Your task to perform on an android device: Clear the shopping cart on walmart.com. Search for "macbook pro" on walmart.com, select the first entry, and add it to the cart. Image 0: 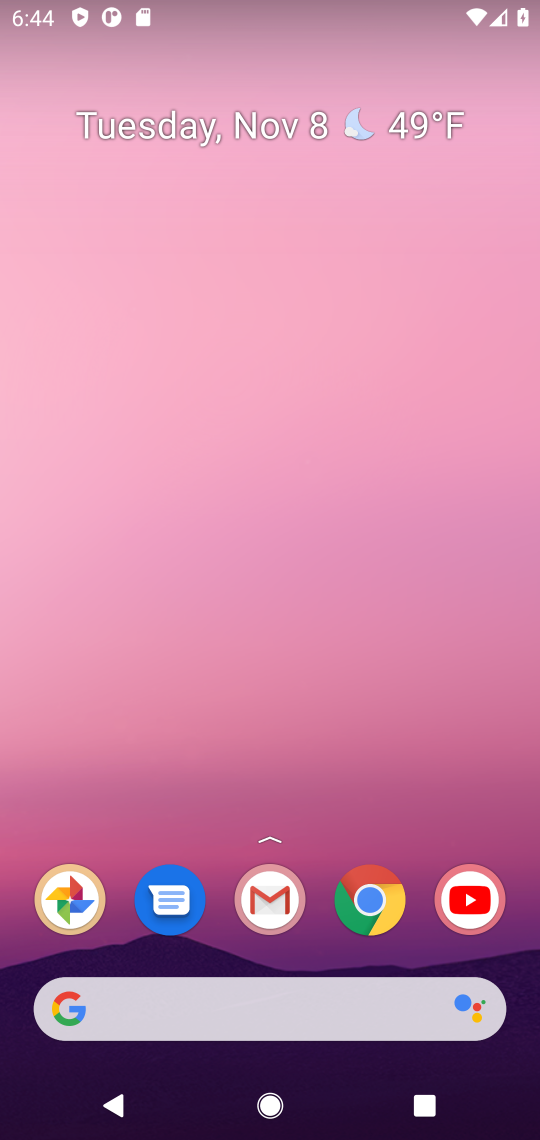
Step 0: drag from (134, 989) to (250, 187)
Your task to perform on an android device: Clear the shopping cart on walmart.com. Search for "macbook pro" on walmart.com, select the first entry, and add it to the cart. Image 1: 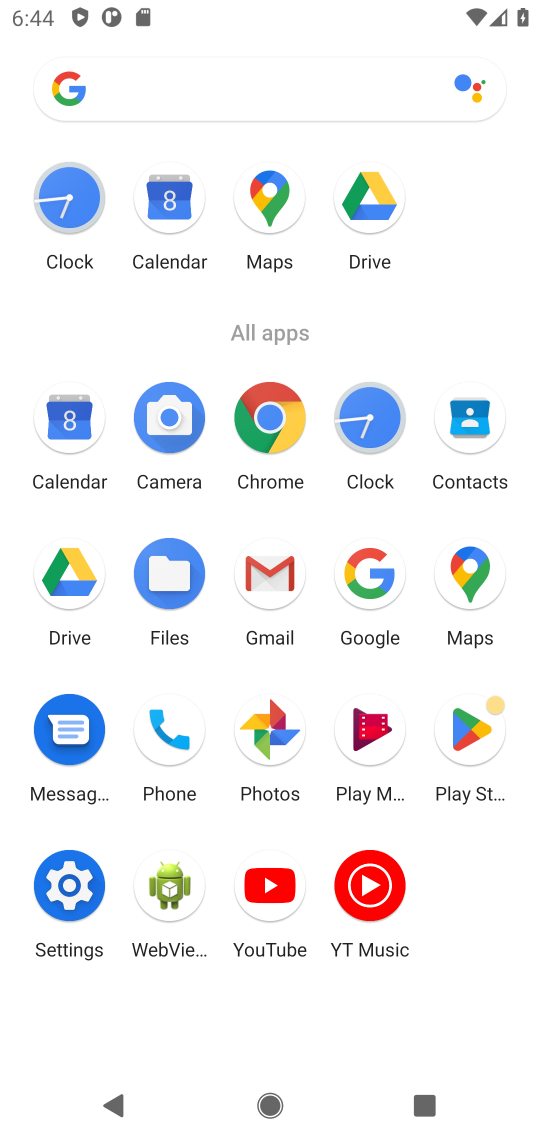
Step 1: click (359, 571)
Your task to perform on an android device: Clear the shopping cart on walmart.com. Search for "macbook pro" on walmart.com, select the first entry, and add it to the cart. Image 2: 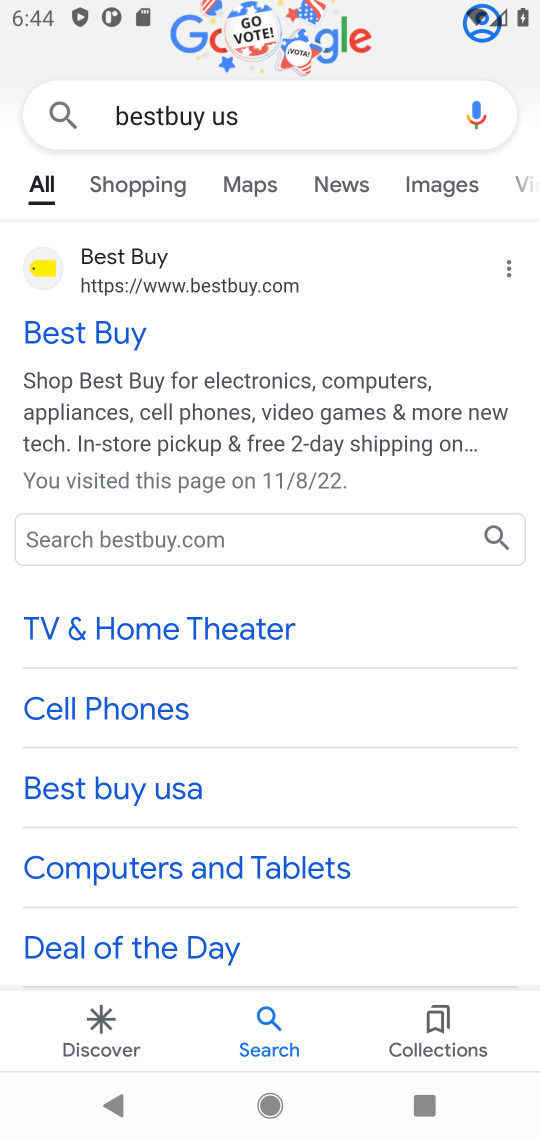
Step 2: click (275, 122)
Your task to perform on an android device: Clear the shopping cart on walmart.com. Search for "macbook pro" on walmart.com, select the first entry, and add it to the cart. Image 3: 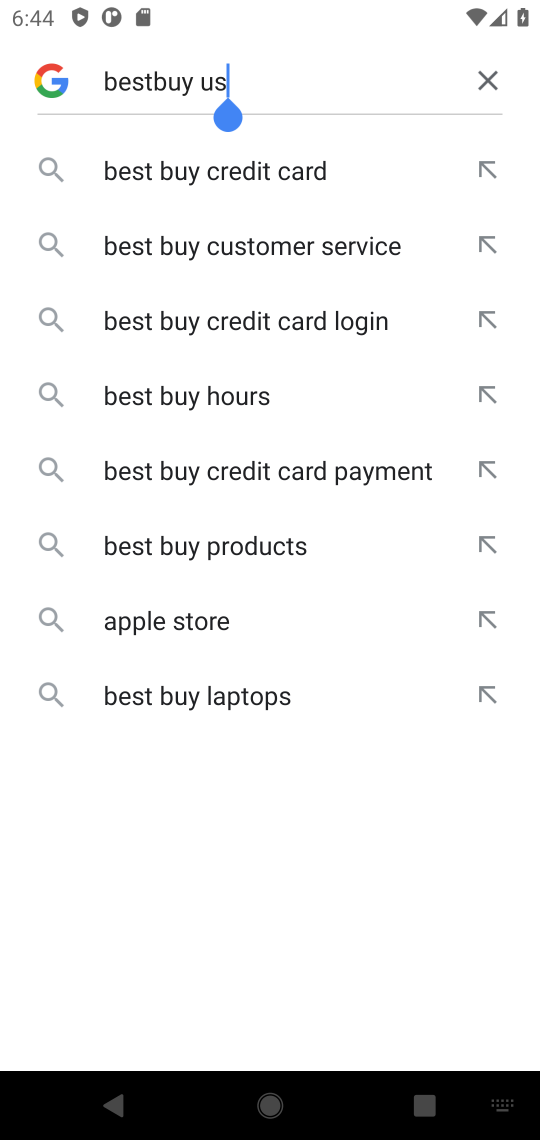
Step 3: click (497, 71)
Your task to perform on an android device: Clear the shopping cart on walmart.com. Search for "macbook pro" on walmart.com, select the first entry, and add it to the cart. Image 4: 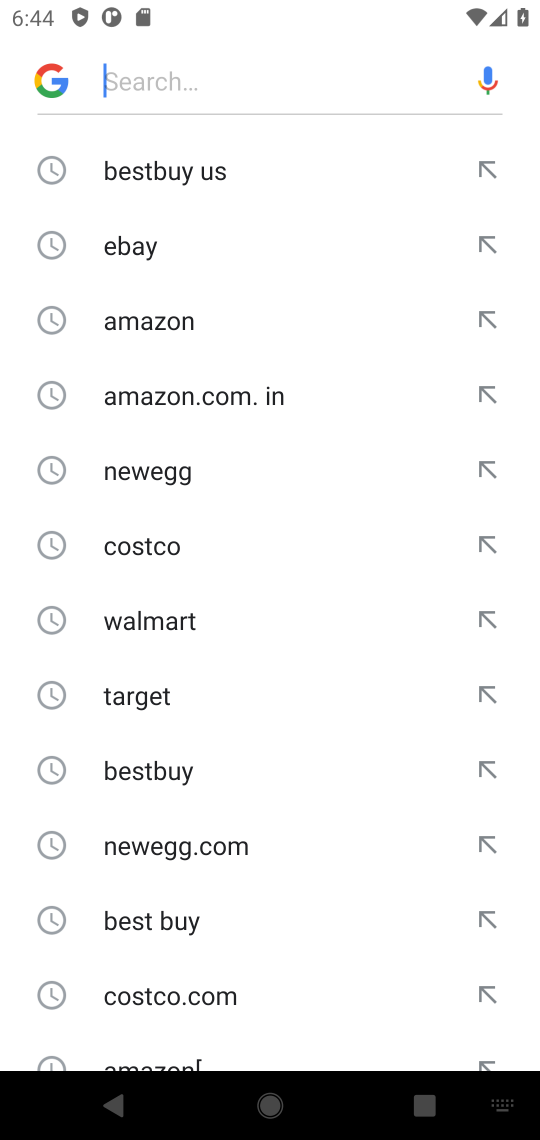
Step 4: click (252, 53)
Your task to perform on an android device: Clear the shopping cart on walmart.com. Search for "macbook pro" on walmart.com, select the first entry, and add it to the cart. Image 5: 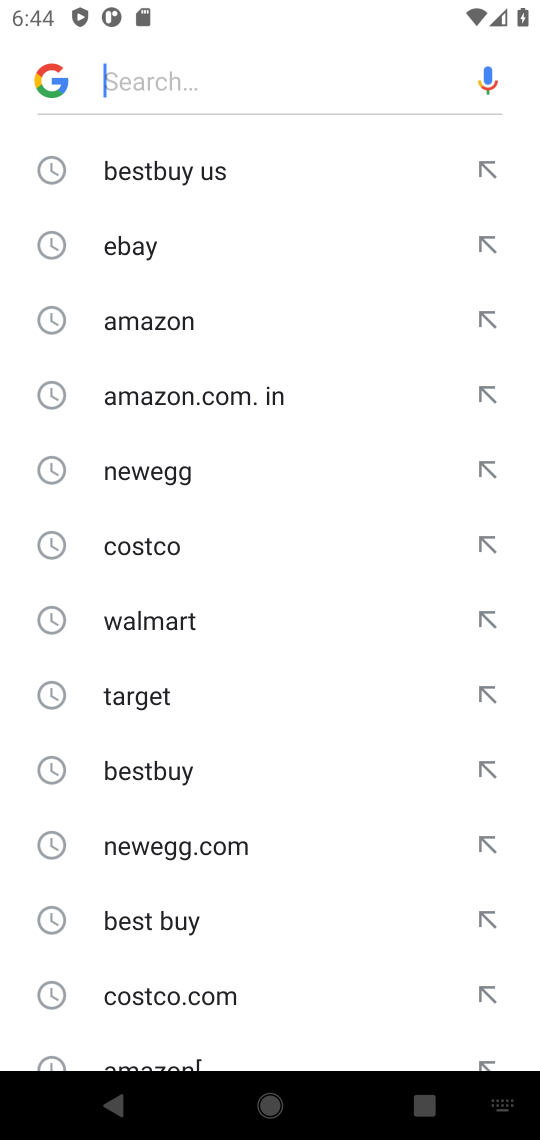
Step 5: click (252, 83)
Your task to perform on an android device: Clear the shopping cart on walmart.com. Search for "macbook pro" on walmart.com, select the first entry, and add it to the cart. Image 6: 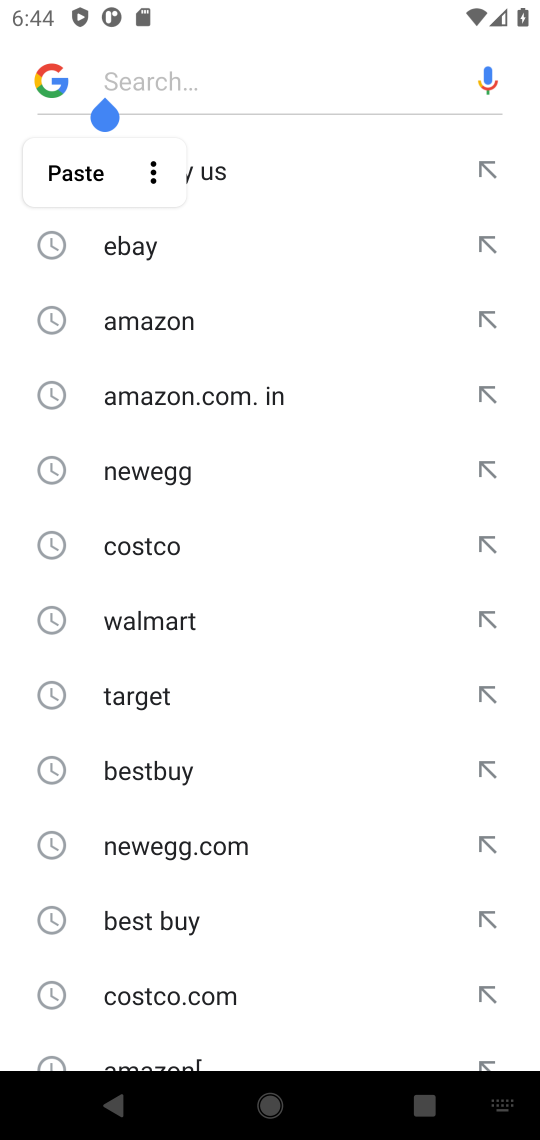
Step 6: type "walmart "
Your task to perform on an android device: Clear the shopping cart on walmart.com. Search for "macbook pro" on walmart.com, select the first entry, and add it to the cart. Image 7: 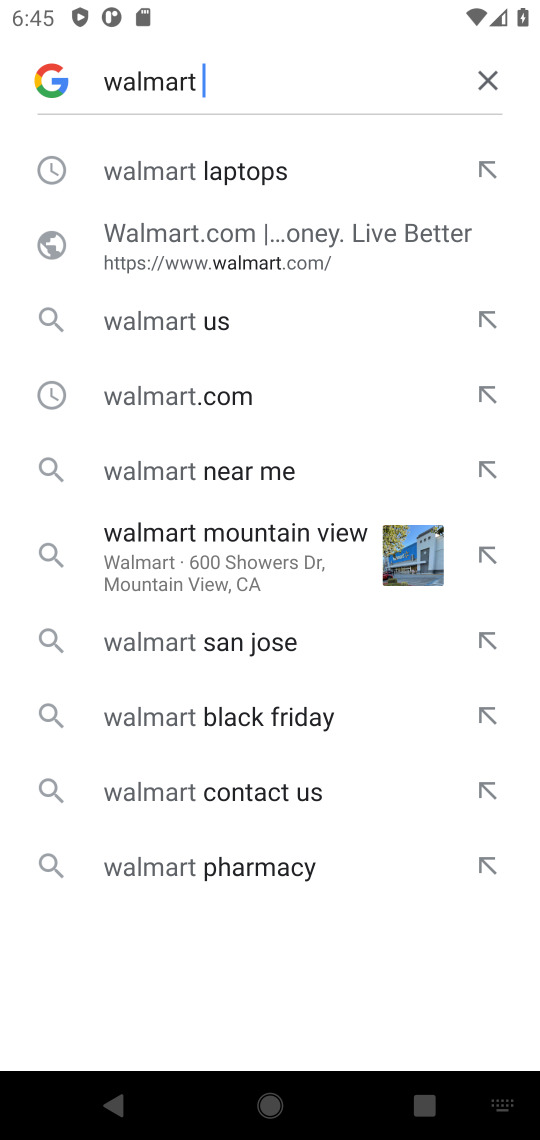
Step 7: click (272, 224)
Your task to perform on an android device: Clear the shopping cart on walmart.com. Search for "macbook pro" on walmart.com, select the first entry, and add it to the cart. Image 8: 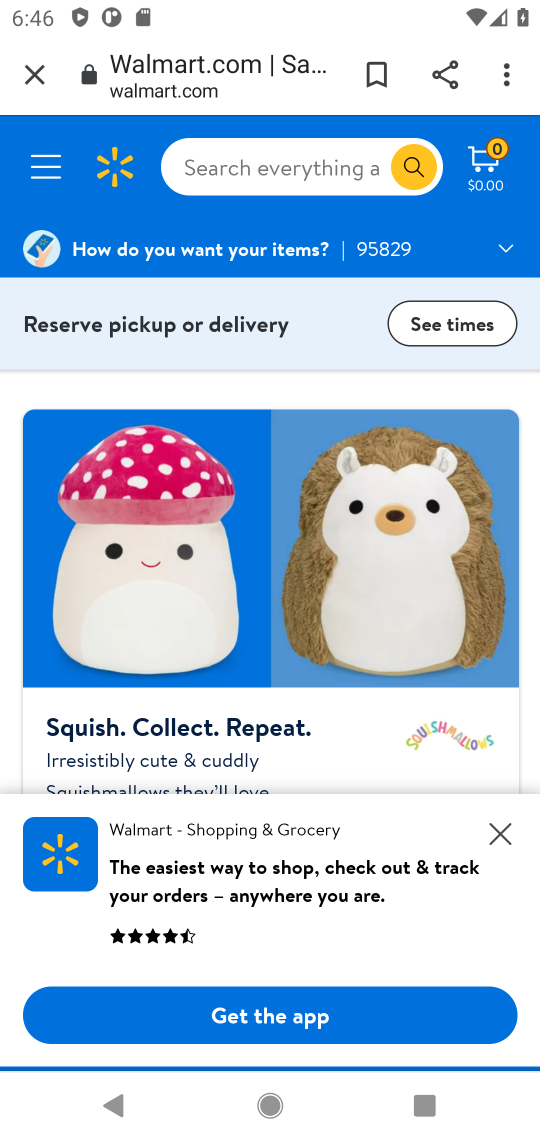
Step 8: click (244, 163)
Your task to perform on an android device: Clear the shopping cart on walmart.com. Search for "macbook pro" on walmart.com, select the first entry, and add it to the cart. Image 9: 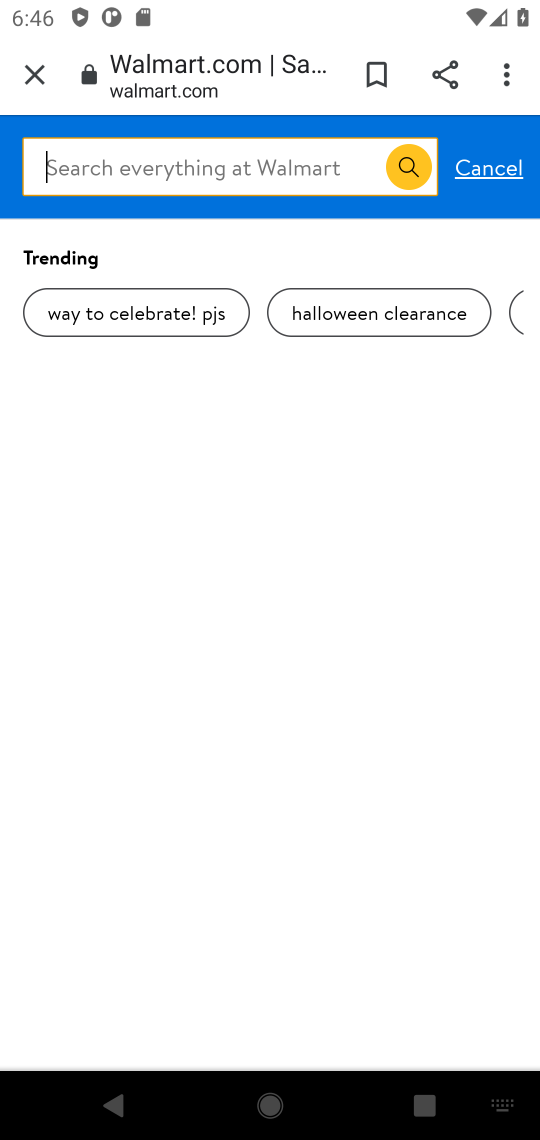
Step 9: type "macbook "
Your task to perform on an android device: Clear the shopping cart on walmart.com. Search for "macbook pro" on walmart.com, select the first entry, and add it to the cart. Image 10: 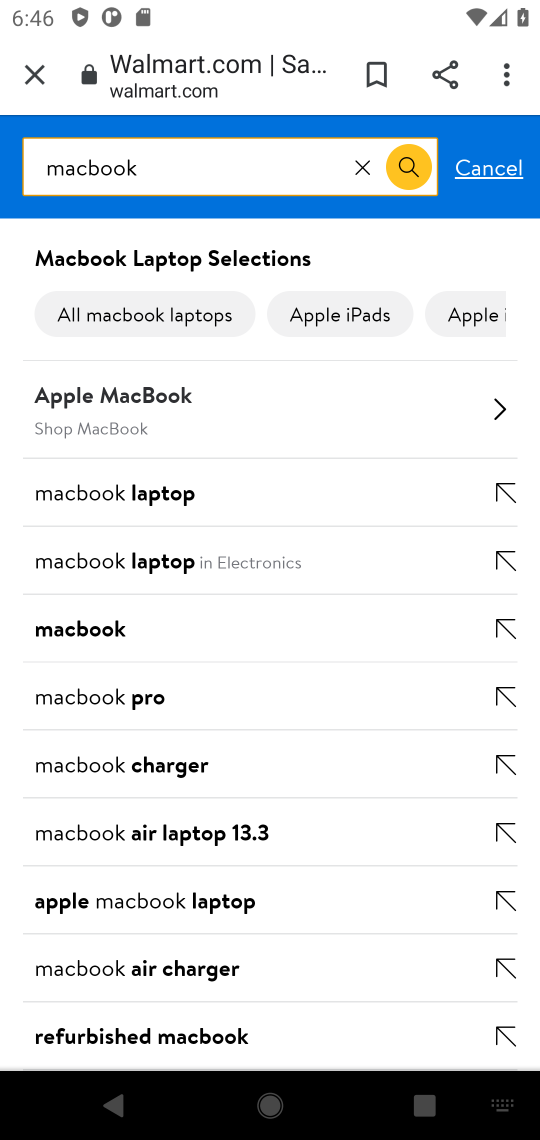
Step 10: click (204, 696)
Your task to perform on an android device: Clear the shopping cart on walmart.com. Search for "macbook pro" on walmart.com, select the first entry, and add it to the cart. Image 11: 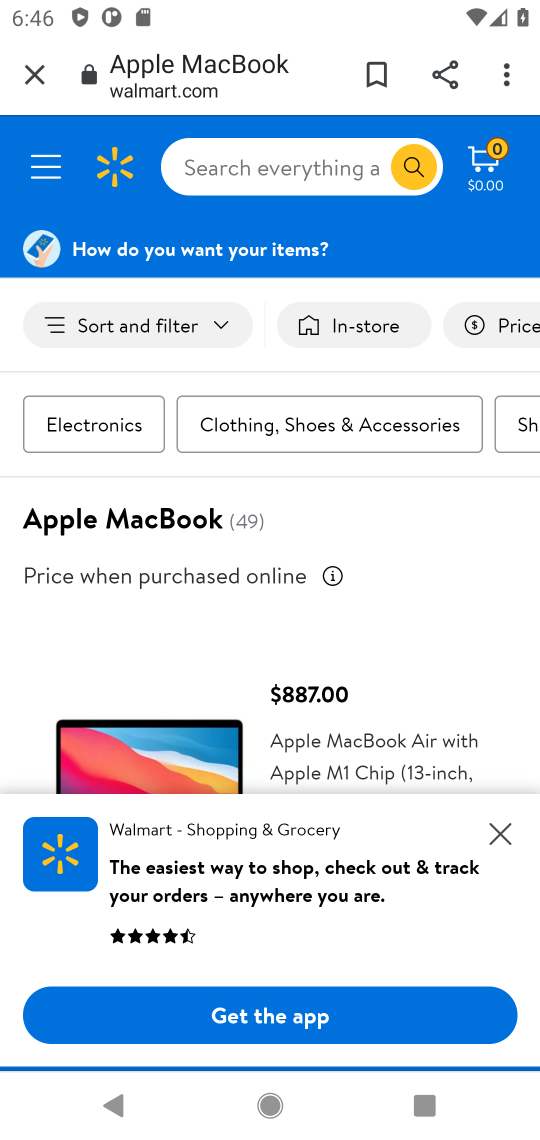
Step 11: click (370, 951)
Your task to perform on an android device: Clear the shopping cart on walmart.com. Search for "macbook pro" on walmart.com, select the first entry, and add it to the cart. Image 12: 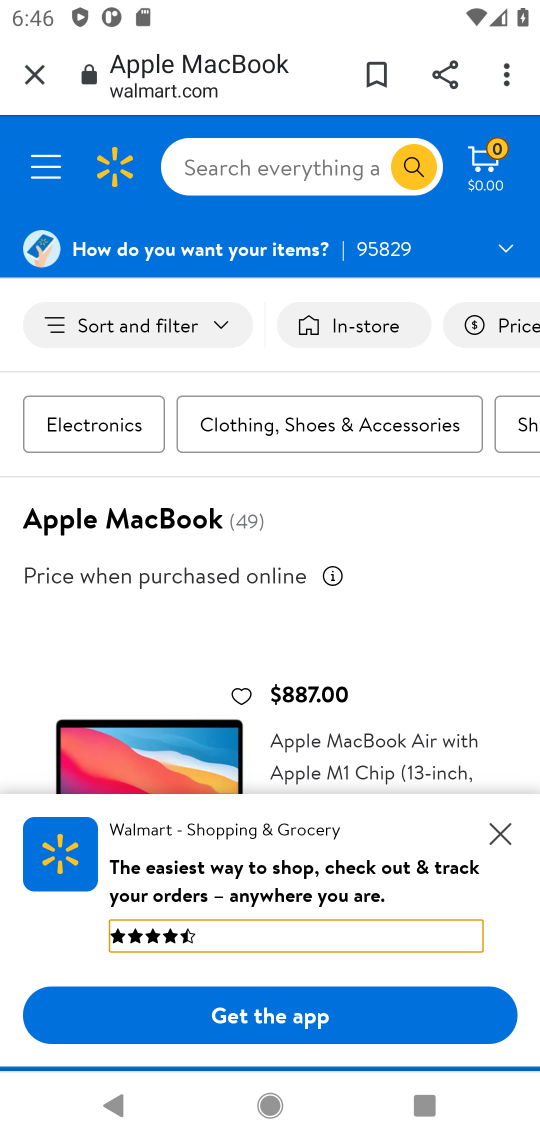
Step 12: click (484, 835)
Your task to perform on an android device: Clear the shopping cart on walmart.com. Search for "macbook pro" on walmart.com, select the first entry, and add it to the cart. Image 13: 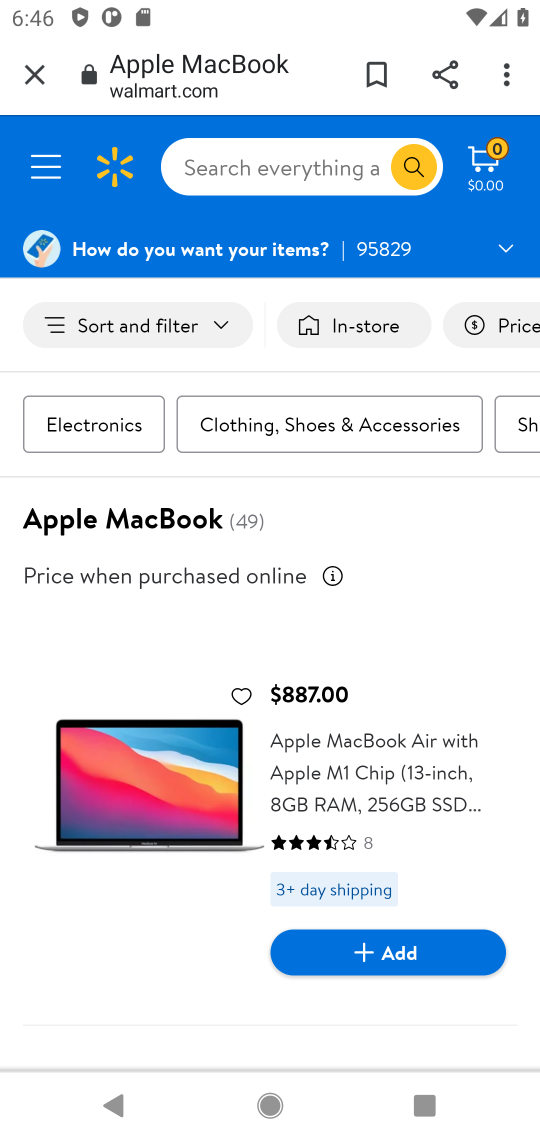
Step 13: click (384, 963)
Your task to perform on an android device: Clear the shopping cart on walmart.com. Search for "macbook pro" on walmart.com, select the first entry, and add it to the cart. Image 14: 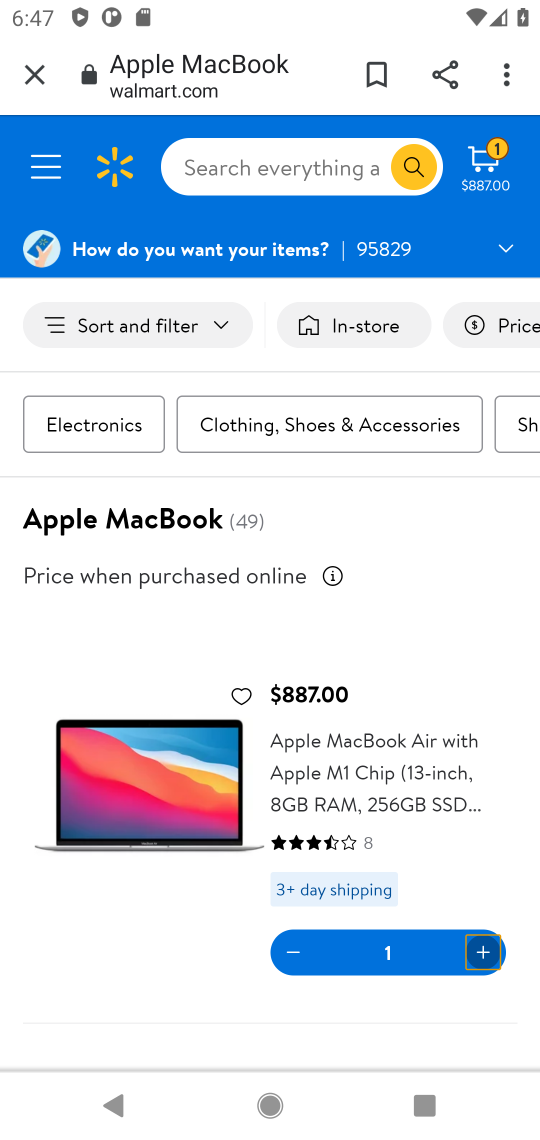
Step 14: task complete